Your task to perform on an android device: turn on notifications settings in the gmail app Image 0: 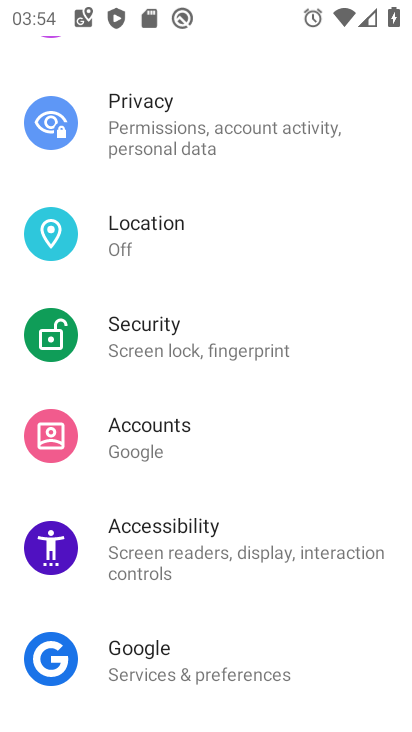
Step 0: press home button
Your task to perform on an android device: turn on notifications settings in the gmail app Image 1: 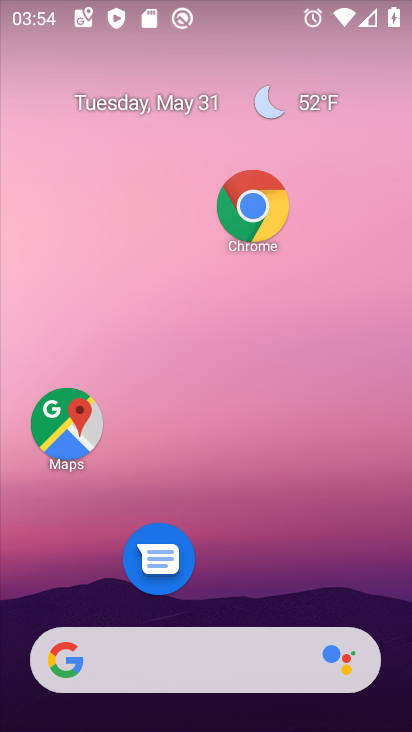
Step 1: drag from (227, 595) to (242, 182)
Your task to perform on an android device: turn on notifications settings in the gmail app Image 2: 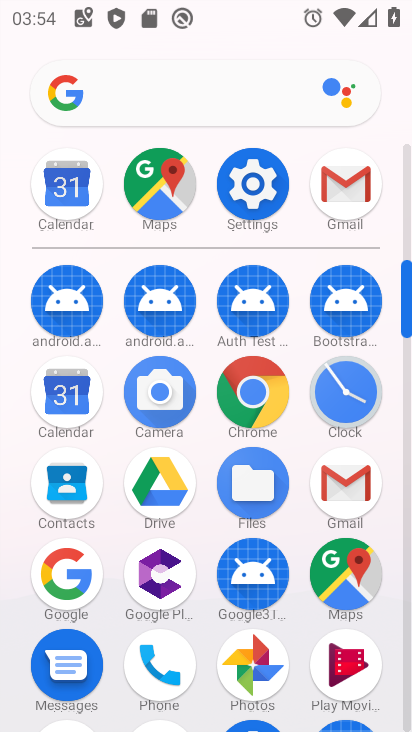
Step 2: click (328, 198)
Your task to perform on an android device: turn on notifications settings in the gmail app Image 3: 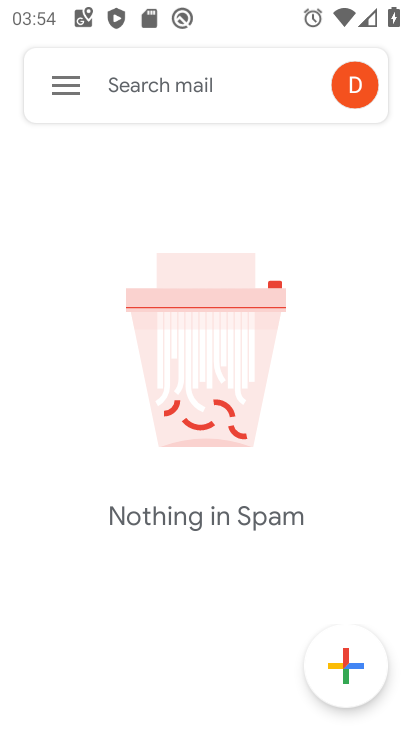
Step 3: click (61, 81)
Your task to perform on an android device: turn on notifications settings in the gmail app Image 4: 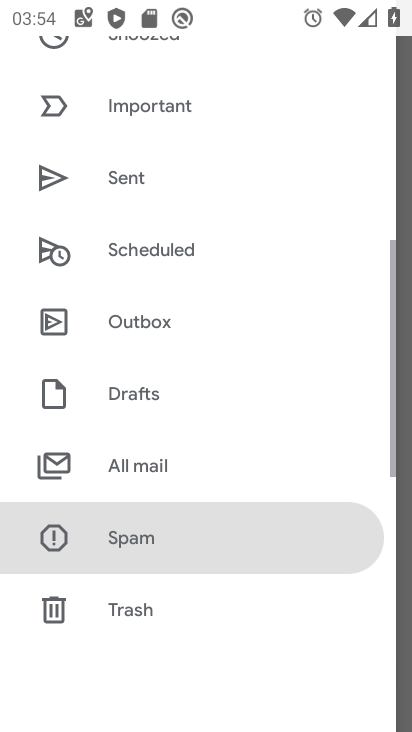
Step 4: drag from (196, 601) to (264, 225)
Your task to perform on an android device: turn on notifications settings in the gmail app Image 5: 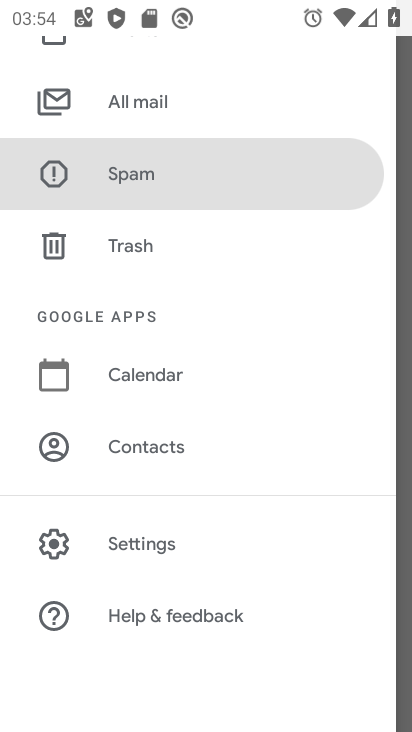
Step 5: click (176, 547)
Your task to perform on an android device: turn on notifications settings in the gmail app Image 6: 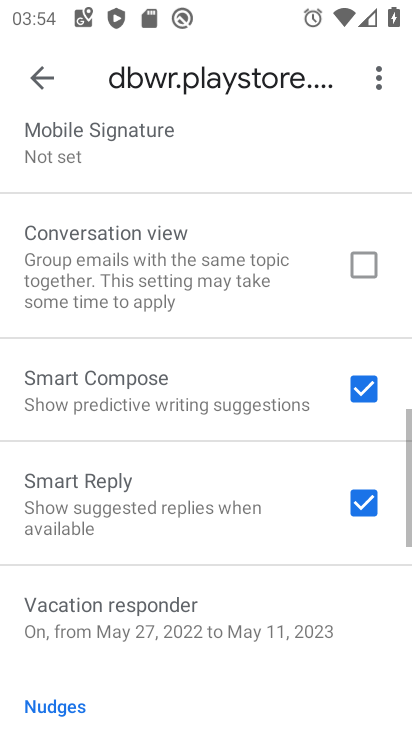
Step 6: drag from (220, 551) to (301, 159)
Your task to perform on an android device: turn on notifications settings in the gmail app Image 7: 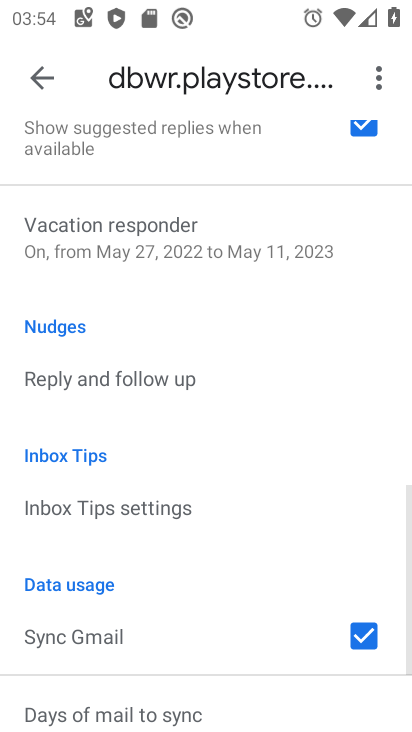
Step 7: drag from (151, 648) to (262, 295)
Your task to perform on an android device: turn on notifications settings in the gmail app Image 8: 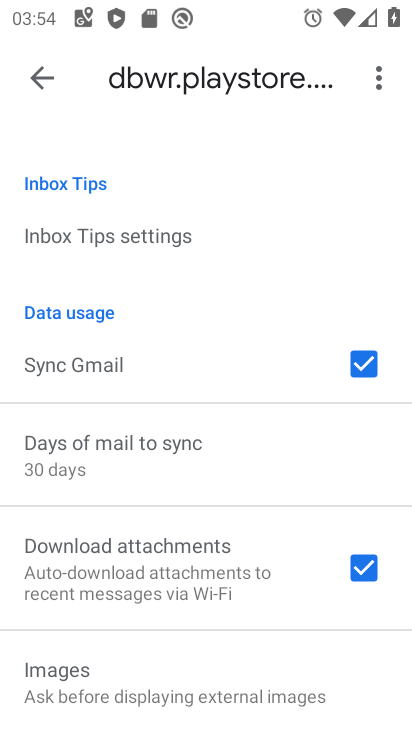
Step 8: drag from (157, 674) to (203, 627)
Your task to perform on an android device: turn on notifications settings in the gmail app Image 9: 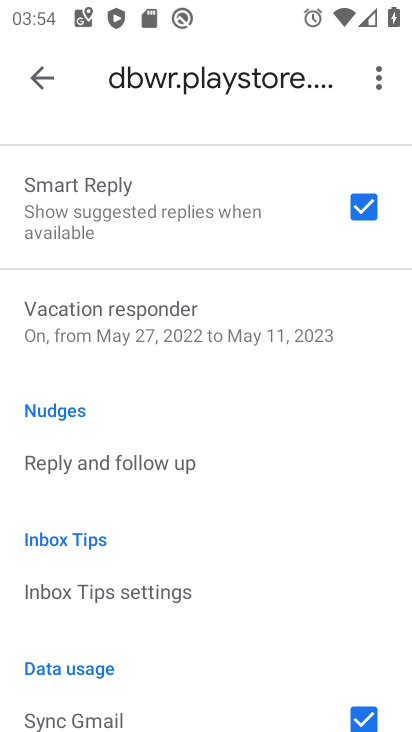
Step 9: drag from (197, 386) to (198, 689)
Your task to perform on an android device: turn on notifications settings in the gmail app Image 10: 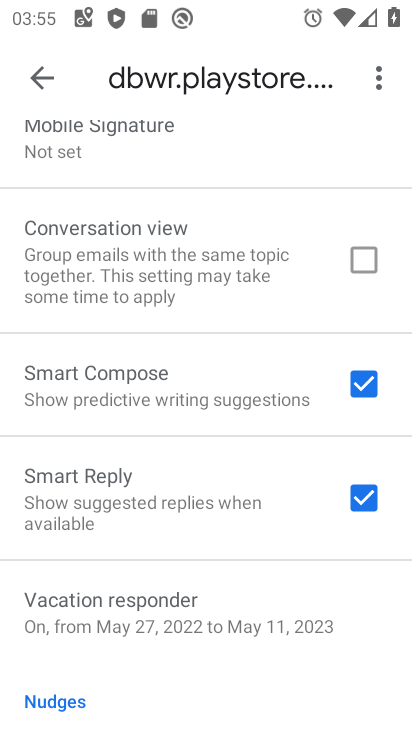
Step 10: drag from (187, 304) to (179, 596)
Your task to perform on an android device: turn on notifications settings in the gmail app Image 11: 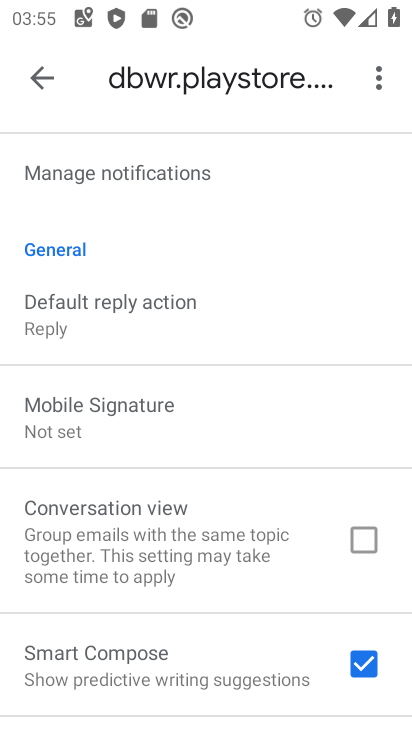
Step 11: click (189, 175)
Your task to perform on an android device: turn on notifications settings in the gmail app Image 12: 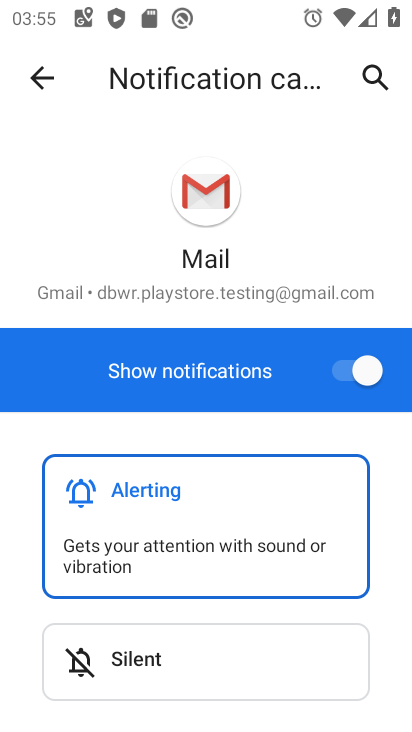
Step 12: task complete